Your task to perform on an android device: Go to settings Image 0: 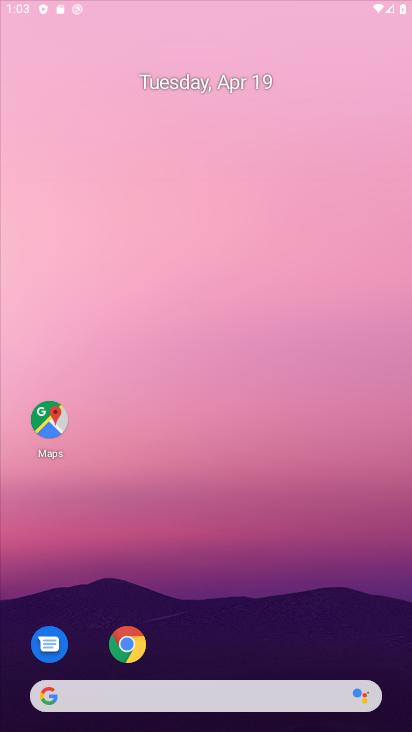
Step 0: click (127, 647)
Your task to perform on an android device: Go to settings Image 1: 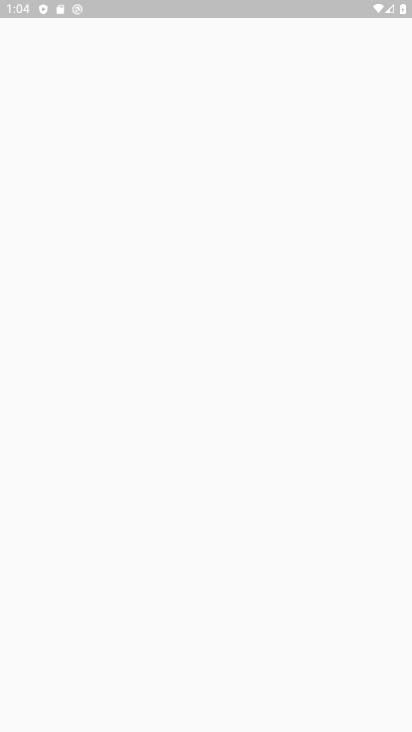
Step 1: press home button
Your task to perform on an android device: Go to settings Image 2: 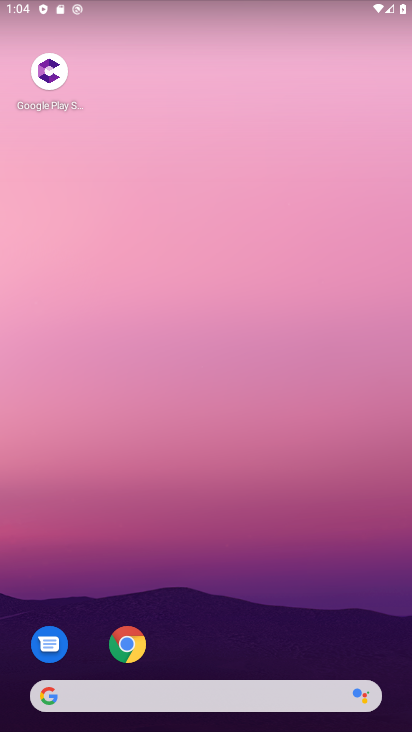
Step 2: drag from (220, 598) to (298, 144)
Your task to perform on an android device: Go to settings Image 3: 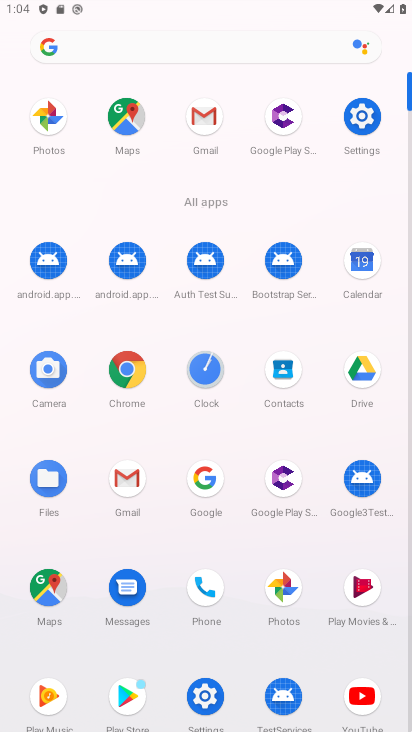
Step 3: click (365, 112)
Your task to perform on an android device: Go to settings Image 4: 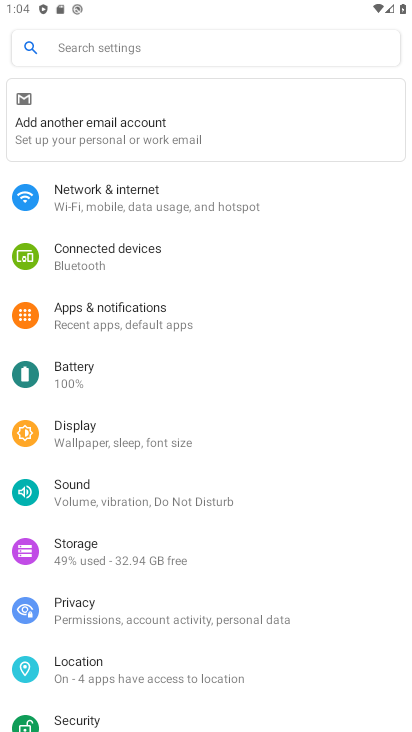
Step 4: task complete